Your task to perform on an android device: read, delete, or share a saved page in the chrome app Image 0: 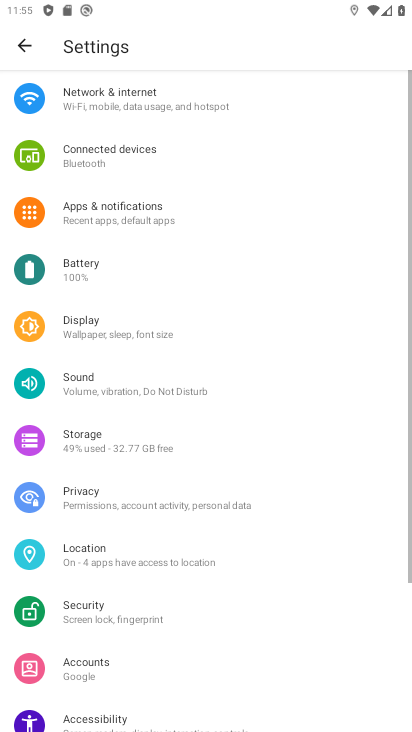
Step 0: press home button
Your task to perform on an android device: read, delete, or share a saved page in the chrome app Image 1: 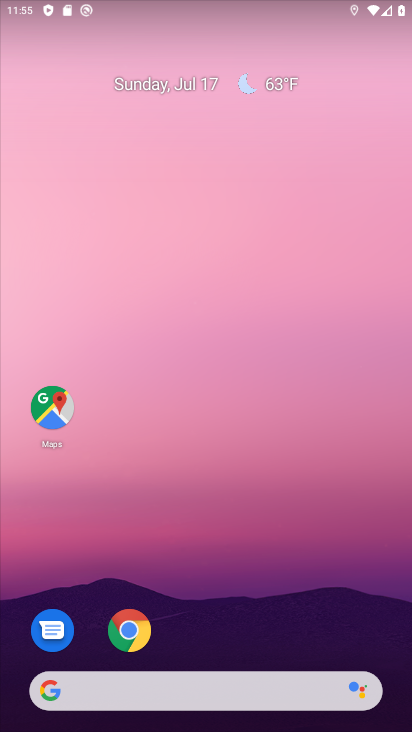
Step 1: click (131, 653)
Your task to perform on an android device: read, delete, or share a saved page in the chrome app Image 2: 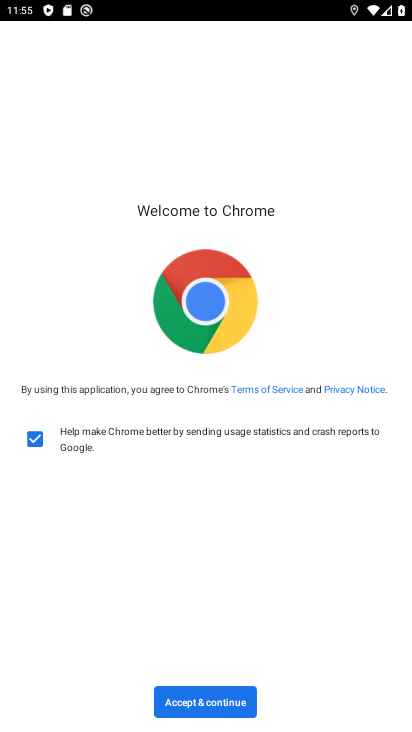
Step 2: click (236, 701)
Your task to perform on an android device: read, delete, or share a saved page in the chrome app Image 3: 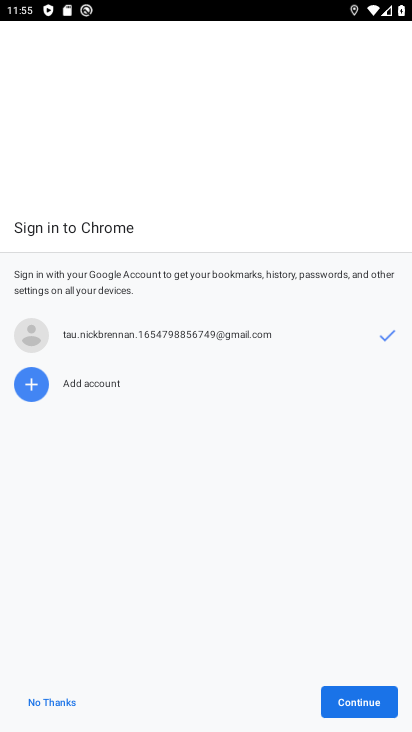
Step 3: click (383, 698)
Your task to perform on an android device: read, delete, or share a saved page in the chrome app Image 4: 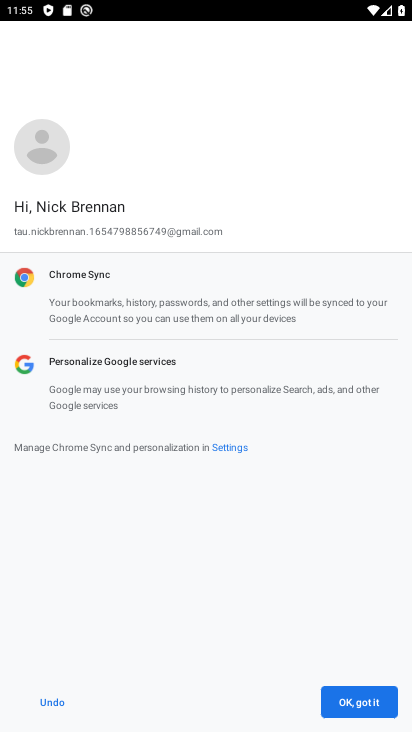
Step 4: click (383, 698)
Your task to perform on an android device: read, delete, or share a saved page in the chrome app Image 5: 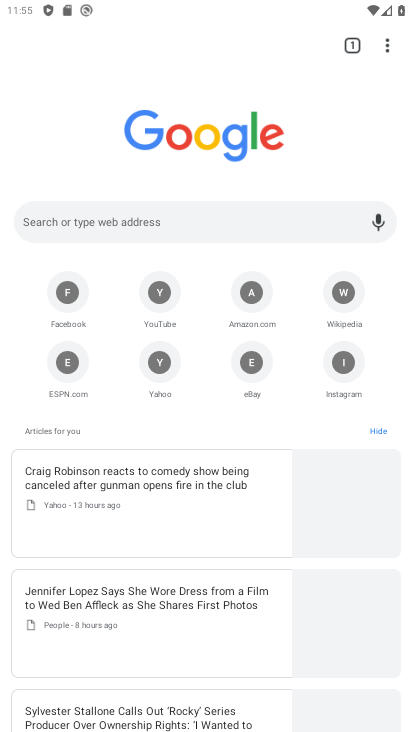
Step 5: drag from (392, 44) to (309, 288)
Your task to perform on an android device: read, delete, or share a saved page in the chrome app Image 6: 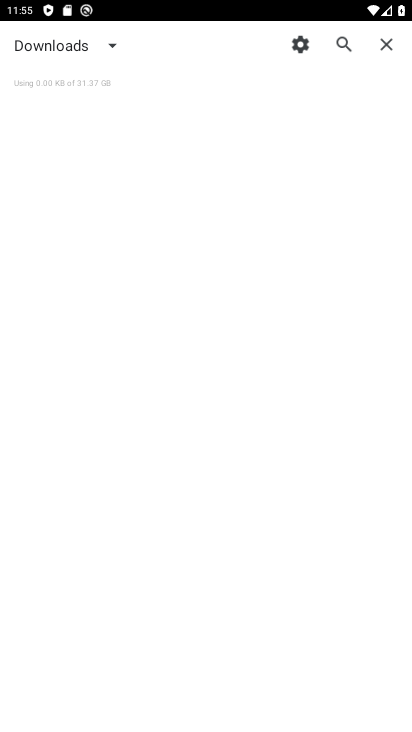
Step 6: click (81, 33)
Your task to perform on an android device: read, delete, or share a saved page in the chrome app Image 7: 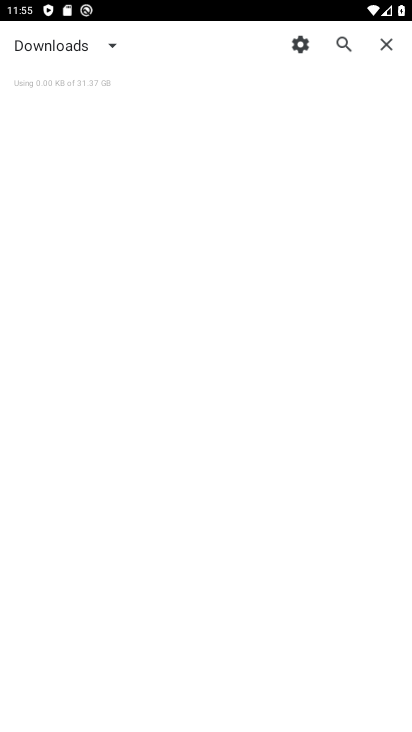
Step 7: click (83, 48)
Your task to perform on an android device: read, delete, or share a saved page in the chrome app Image 8: 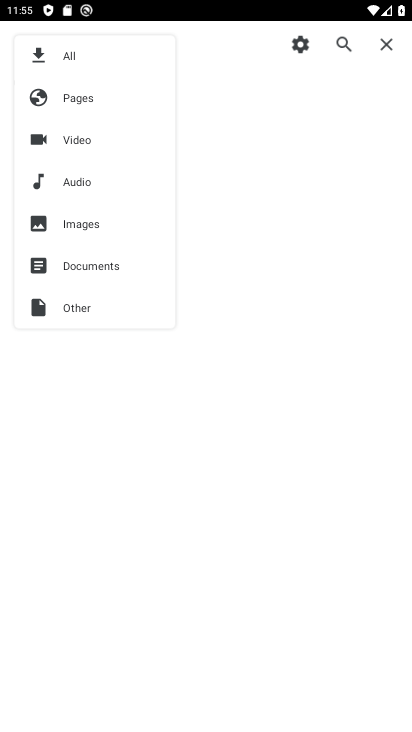
Step 8: click (135, 110)
Your task to perform on an android device: read, delete, or share a saved page in the chrome app Image 9: 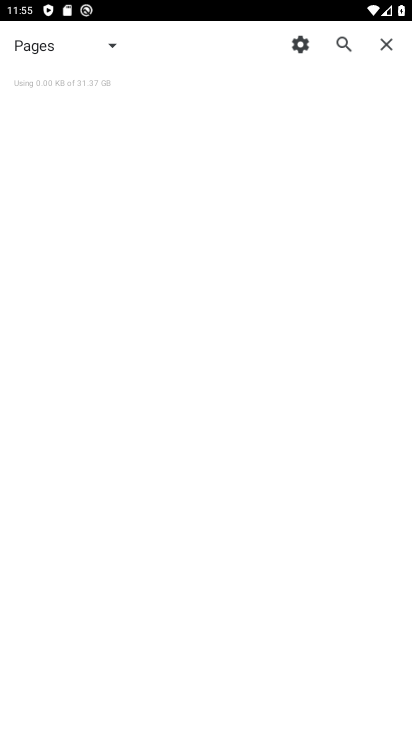
Step 9: task complete